Your task to perform on an android device: Open ESPN.com Image 0: 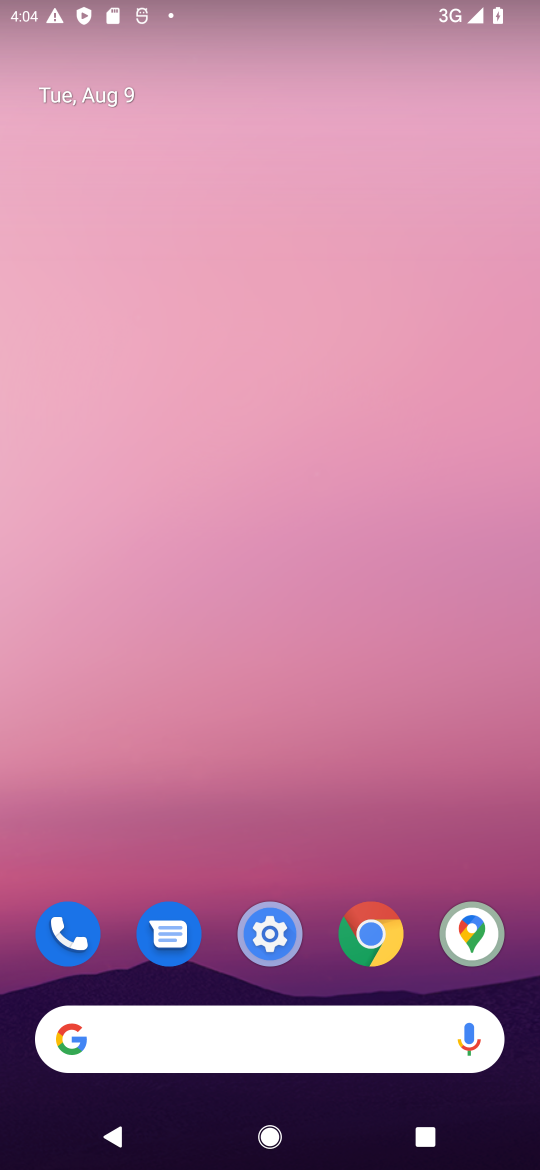
Step 0: click (380, 928)
Your task to perform on an android device: Open ESPN.com Image 1: 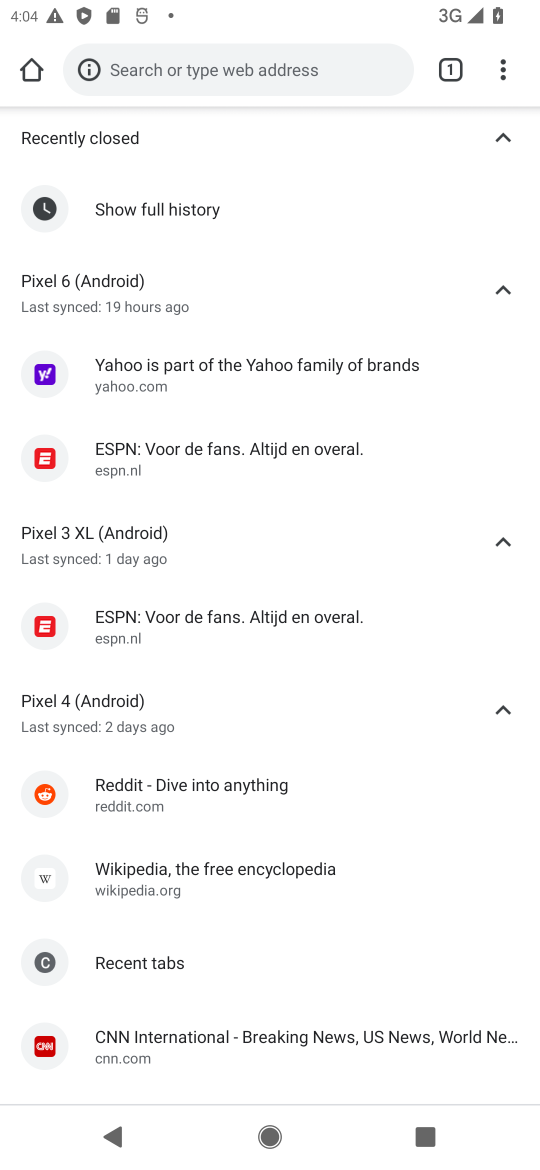
Step 1: click (230, 443)
Your task to perform on an android device: Open ESPN.com Image 2: 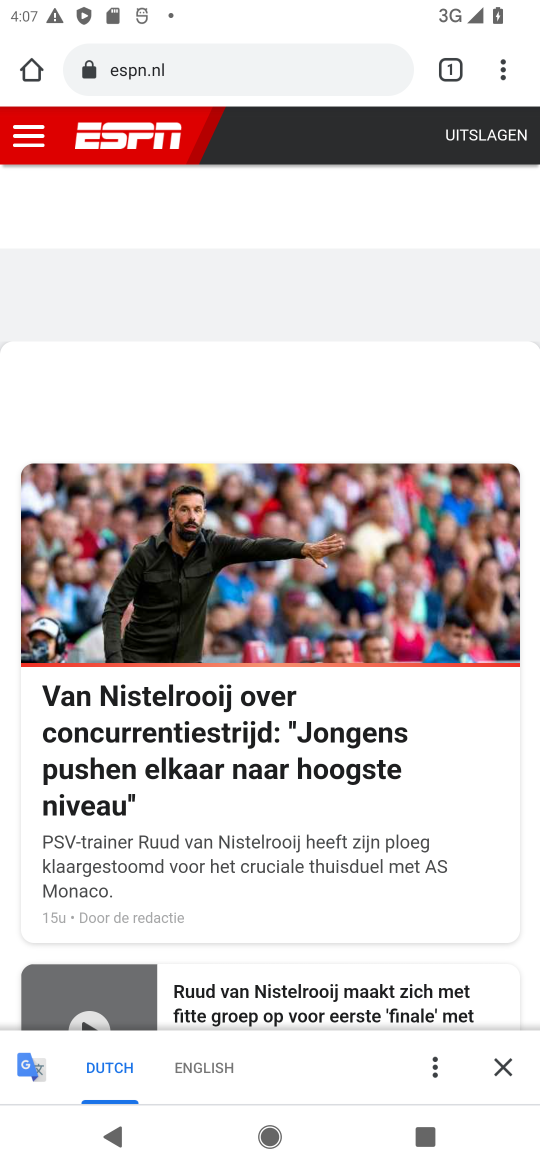
Step 2: task complete